Your task to perform on an android device: turn off javascript in the chrome app Image 0: 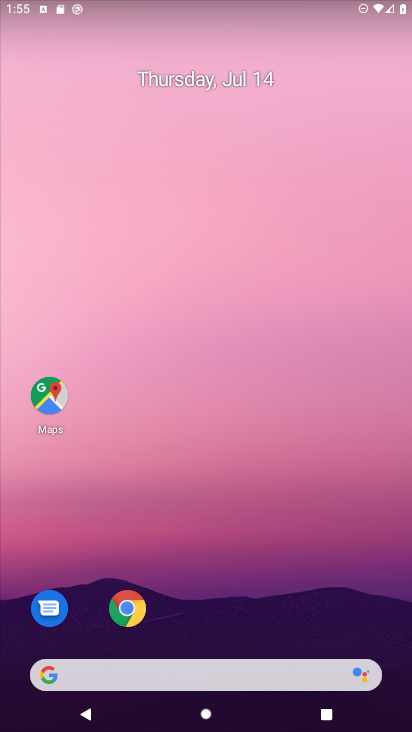
Step 0: click (122, 607)
Your task to perform on an android device: turn off javascript in the chrome app Image 1: 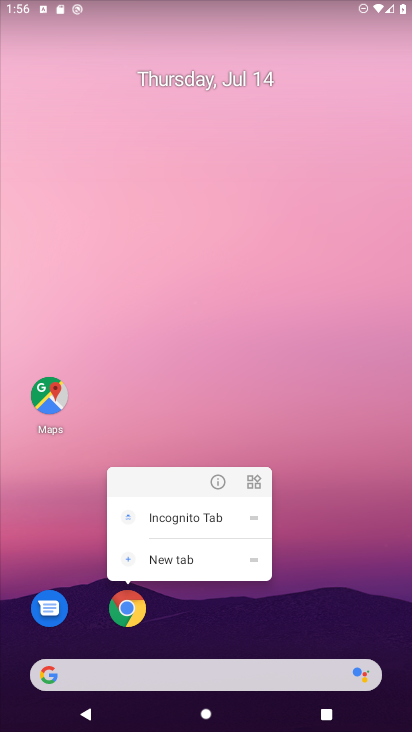
Step 1: click (127, 612)
Your task to perform on an android device: turn off javascript in the chrome app Image 2: 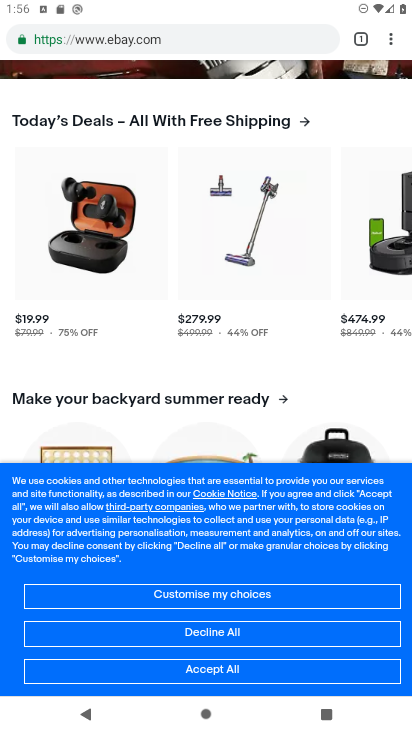
Step 2: click (389, 45)
Your task to perform on an android device: turn off javascript in the chrome app Image 3: 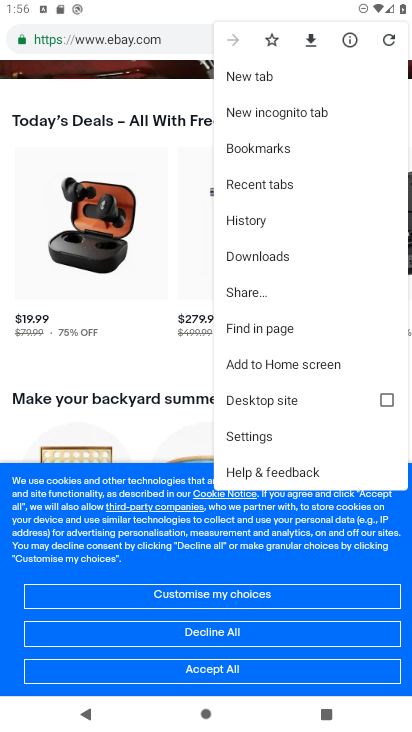
Step 3: click (255, 437)
Your task to perform on an android device: turn off javascript in the chrome app Image 4: 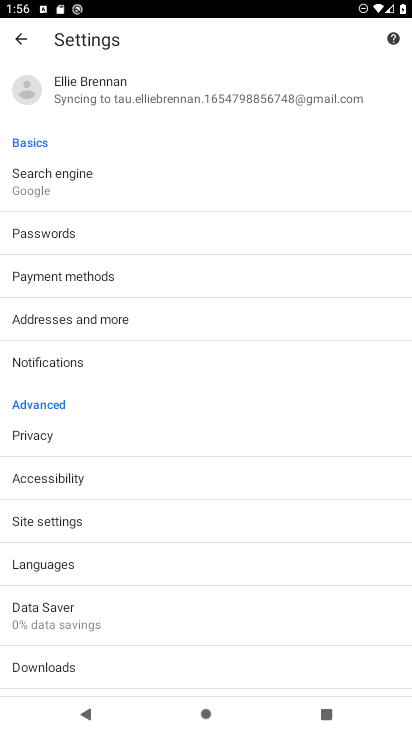
Step 4: click (58, 517)
Your task to perform on an android device: turn off javascript in the chrome app Image 5: 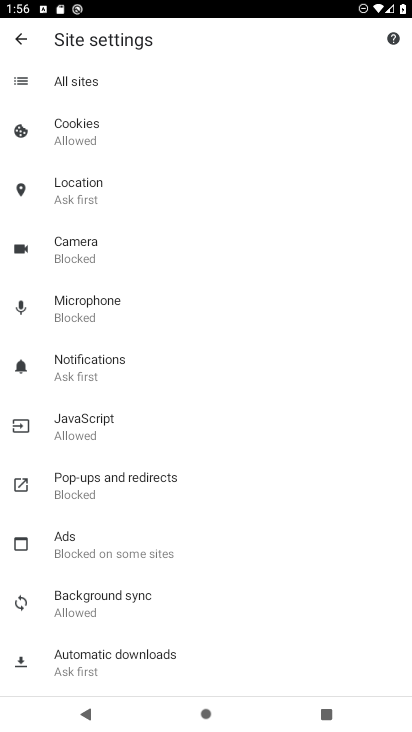
Step 5: click (89, 419)
Your task to perform on an android device: turn off javascript in the chrome app Image 6: 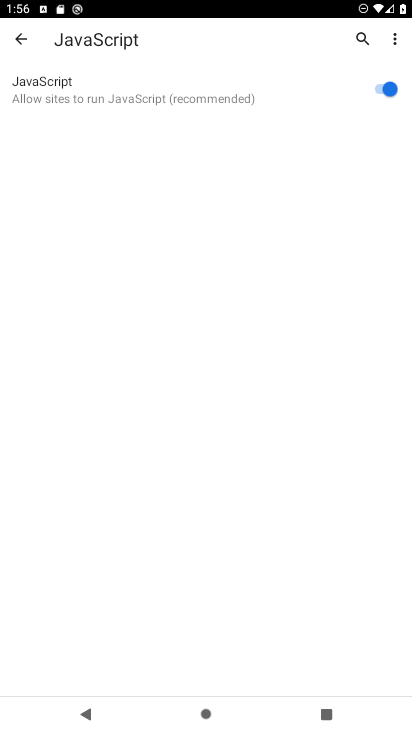
Step 6: click (374, 89)
Your task to perform on an android device: turn off javascript in the chrome app Image 7: 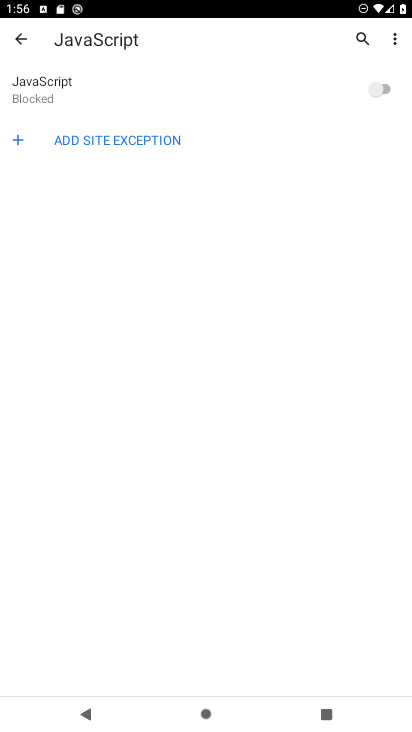
Step 7: task complete